Your task to perform on an android device: Go to internet settings Image 0: 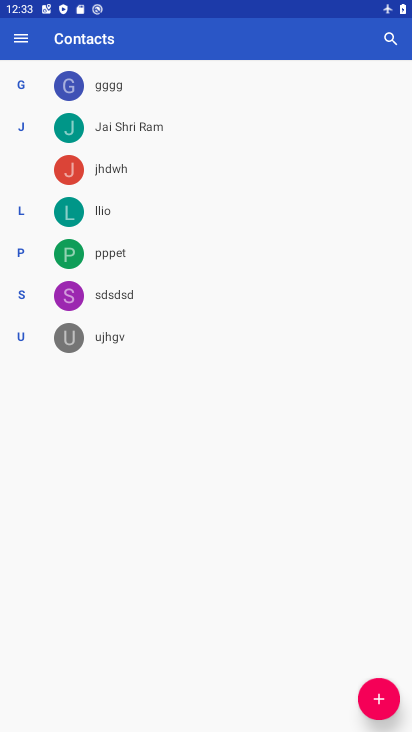
Step 0: press home button
Your task to perform on an android device: Go to internet settings Image 1: 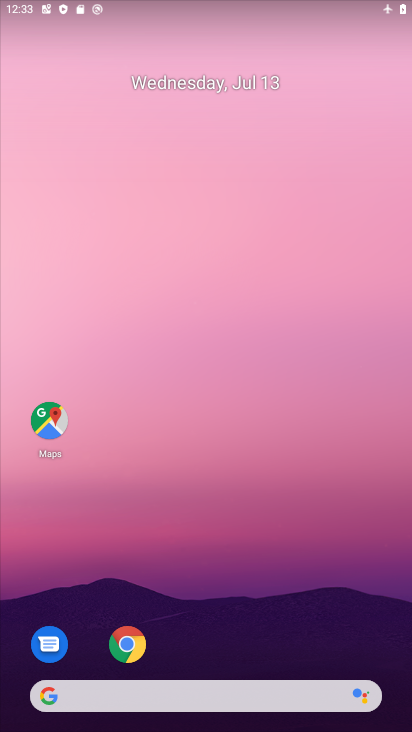
Step 1: drag from (236, 603) to (195, 244)
Your task to perform on an android device: Go to internet settings Image 2: 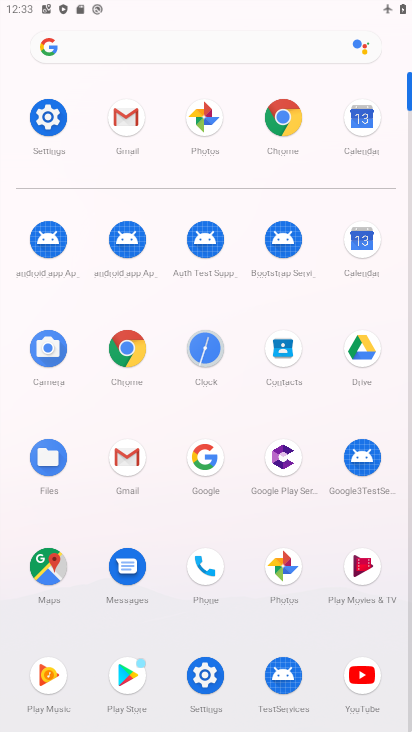
Step 2: click (44, 114)
Your task to perform on an android device: Go to internet settings Image 3: 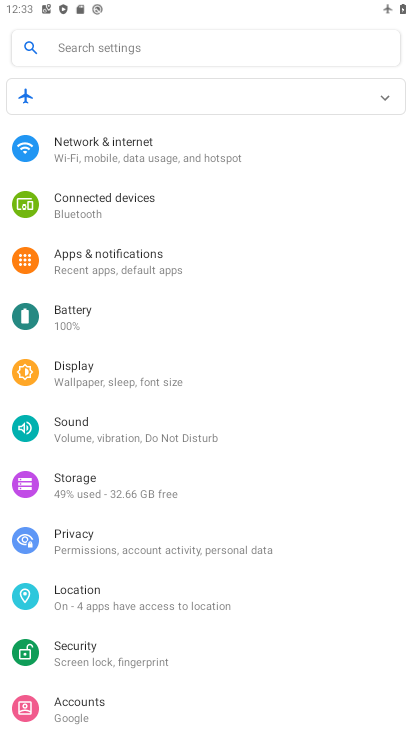
Step 3: click (120, 150)
Your task to perform on an android device: Go to internet settings Image 4: 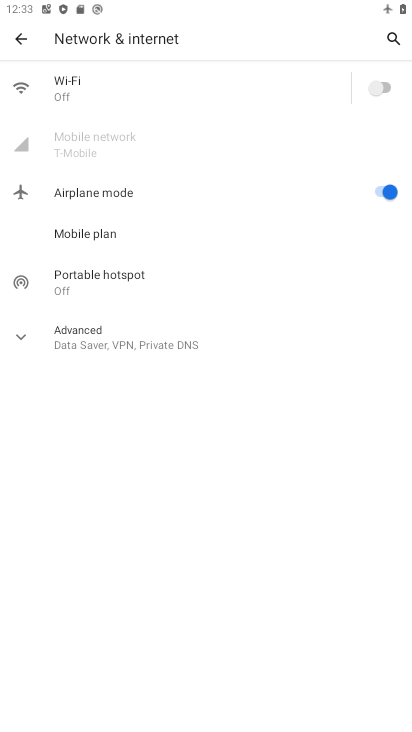
Step 4: click (124, 346)
Your task to perform on an android device: Go to internet settings Image 5: 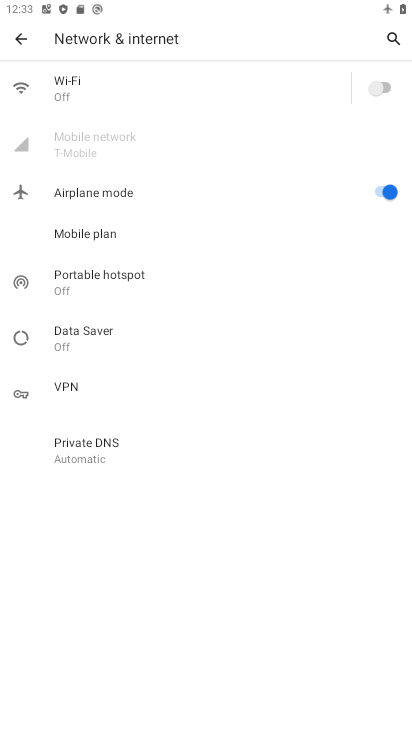
Step 5: task complete